Your task to perform on an android device: Open calendar and show me the fourth week of next month Image 0: 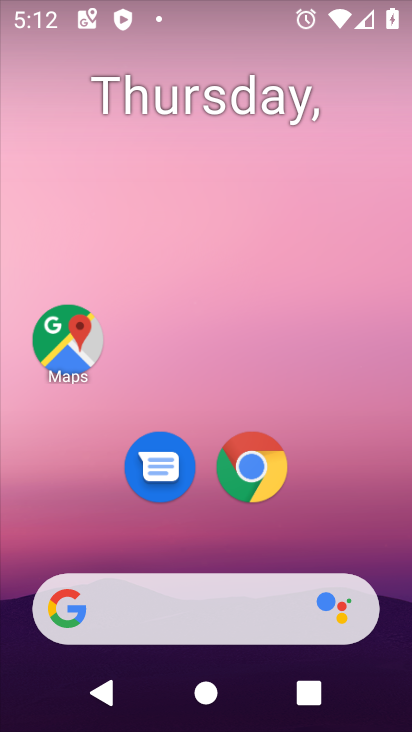
Step 0: drag from (380, 536) to (316, 110)
Your task to perform on an android device: Open calendar and show me the fourth week of next month Image 1: 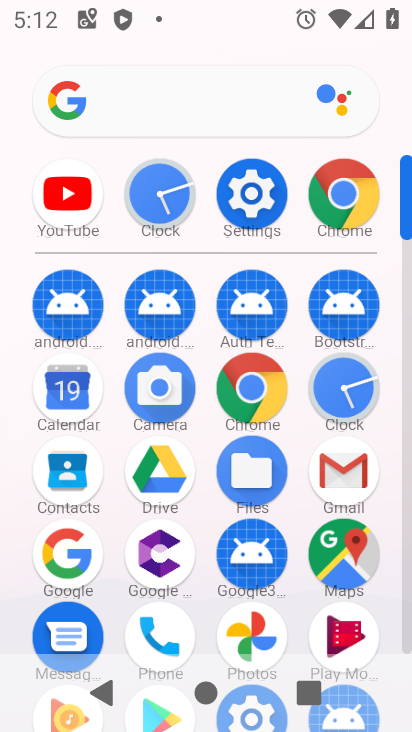
Step 1: click (62, 382)
Your task to perform on an android device: Open calendar and show me the fourth week of next month Image 2: 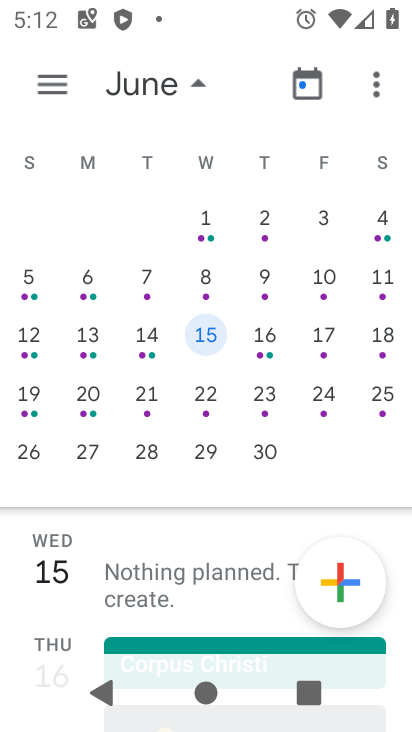
Step 2: click (221, 398)
Your task to perform on an android device: Open calendar and show me the fourth week of next month Image 3: 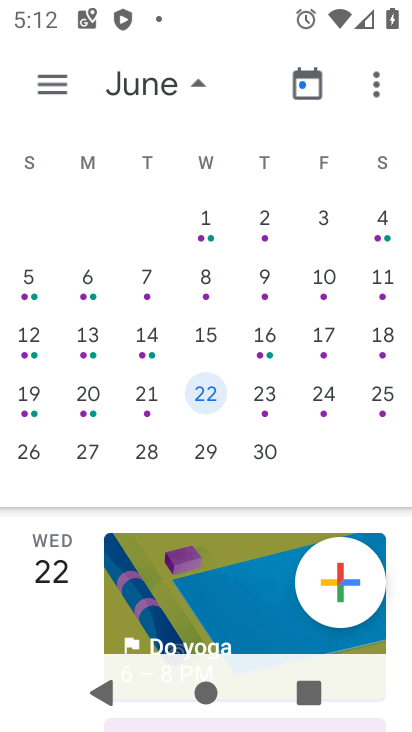
Step 3: task complete